Your task to perform on an android device: uninstall "AliExpress" Image 0: 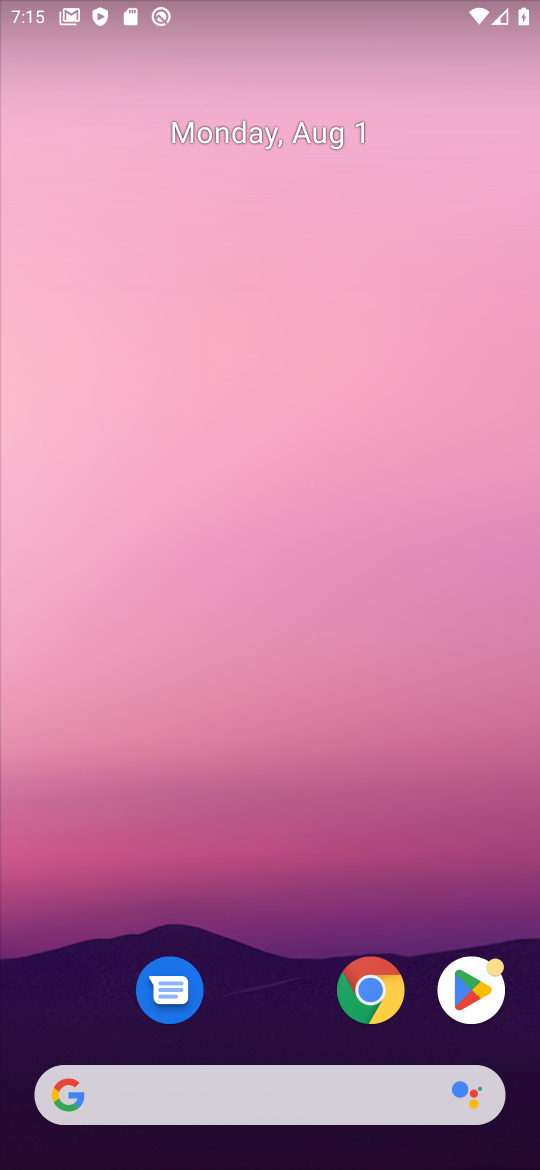
Step 0: press home button
Your task to perform on an android device: uninstall "AliExpress" Image 1: 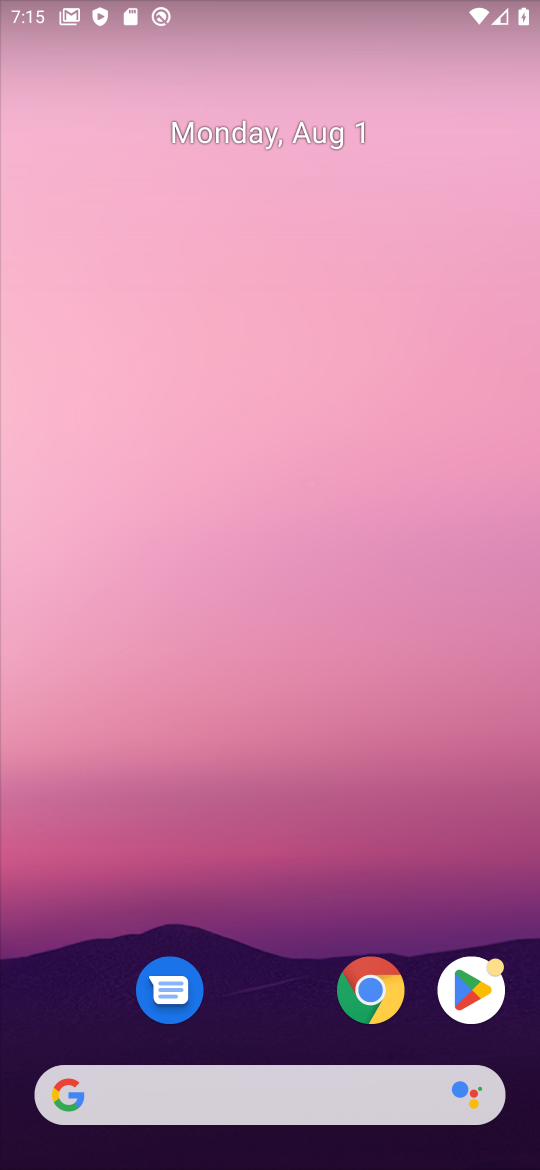
Step 1: click (481, 988)
Your task to perform on an android device: uninstall "AliExpress" Image 2: 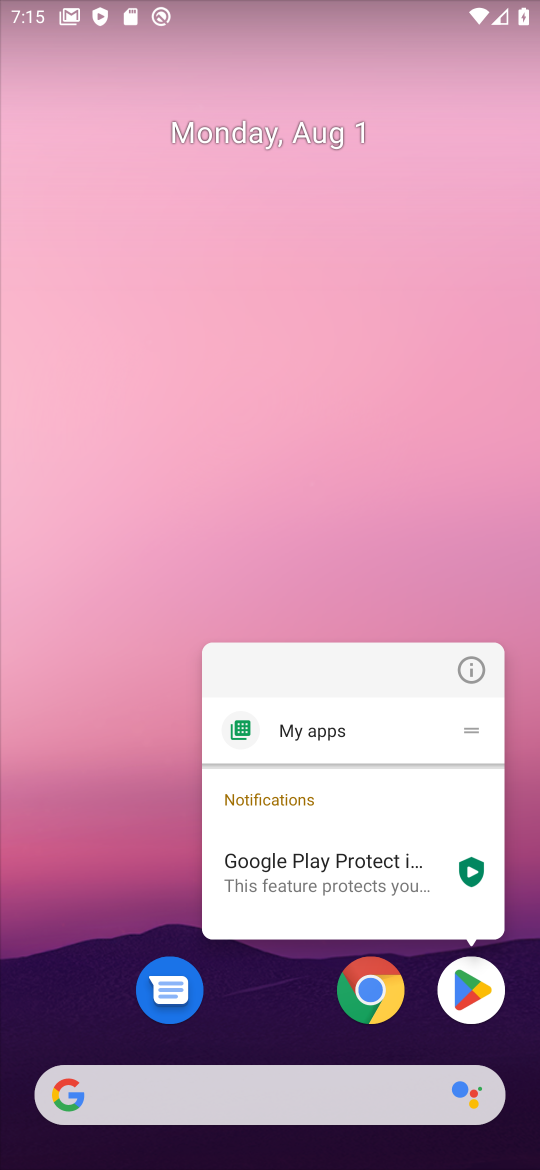
Step 2: click (460, 986)
Your task to perform on an android device: uninstall "AliExpress" Image 3: 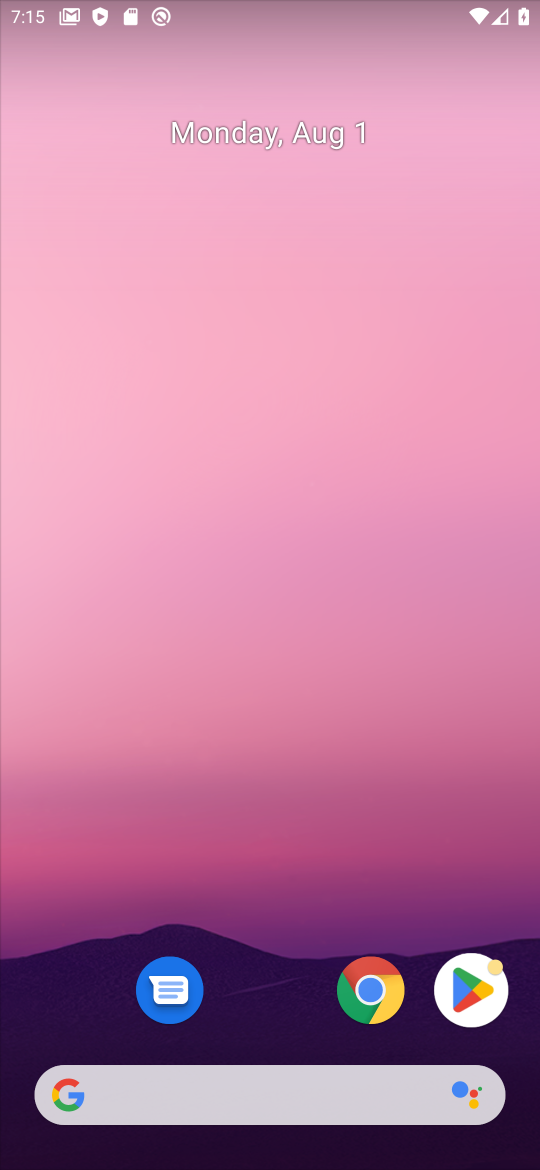
Step 3: click (465, 989)
Your task to perform on an android device: uninstall "AliExpress" Image 4: 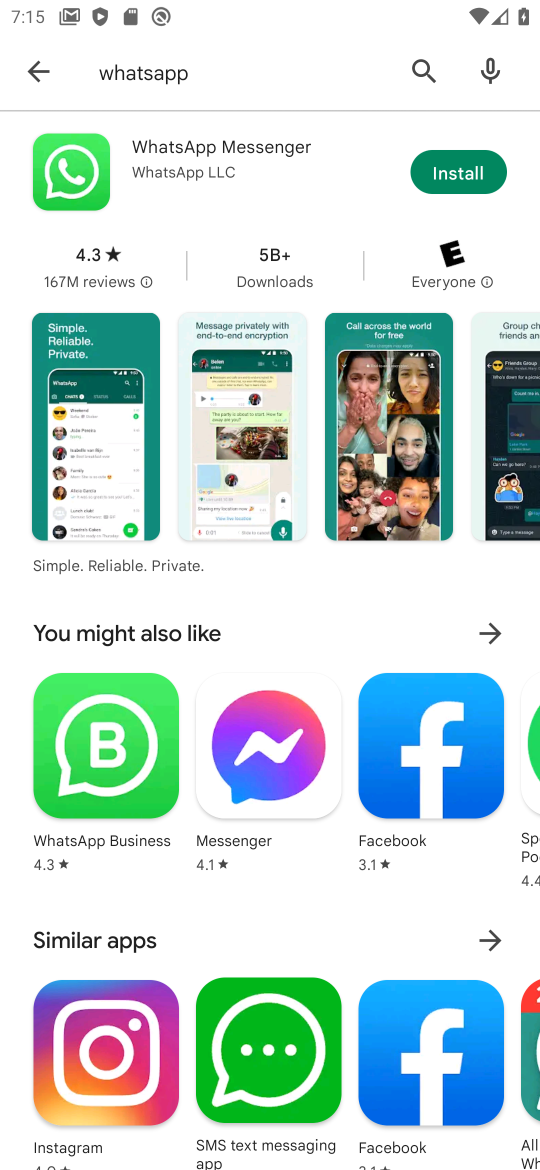
Step 4: click (419, 66)
Your task to perform on an android device: uninstall "AliExpress" Image 5: 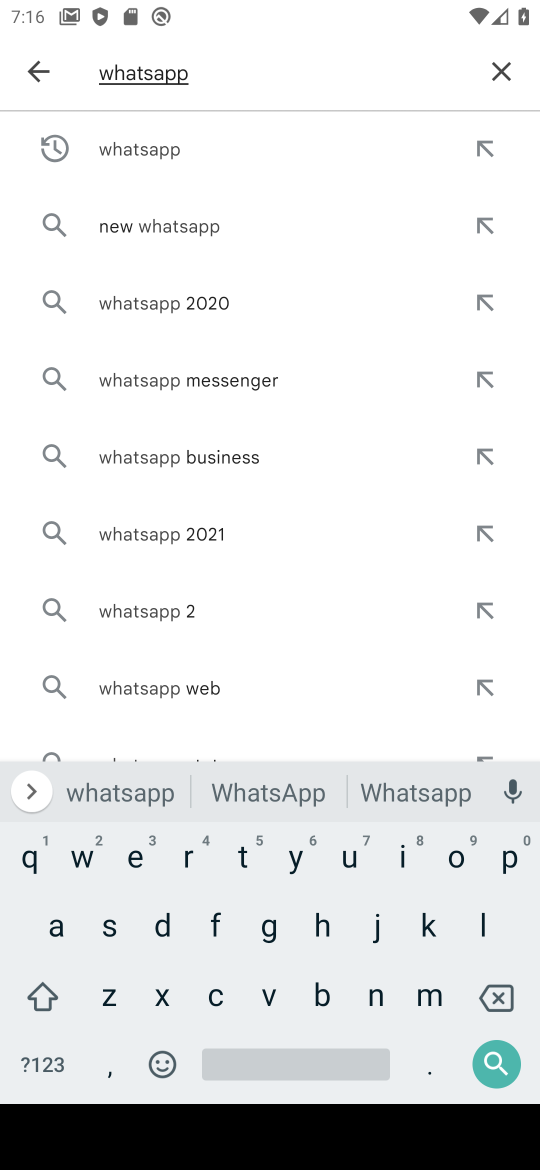
Step 5: click (502, 69)
Your task to perform on an android device: uninstall "AliExpress" Image 6: 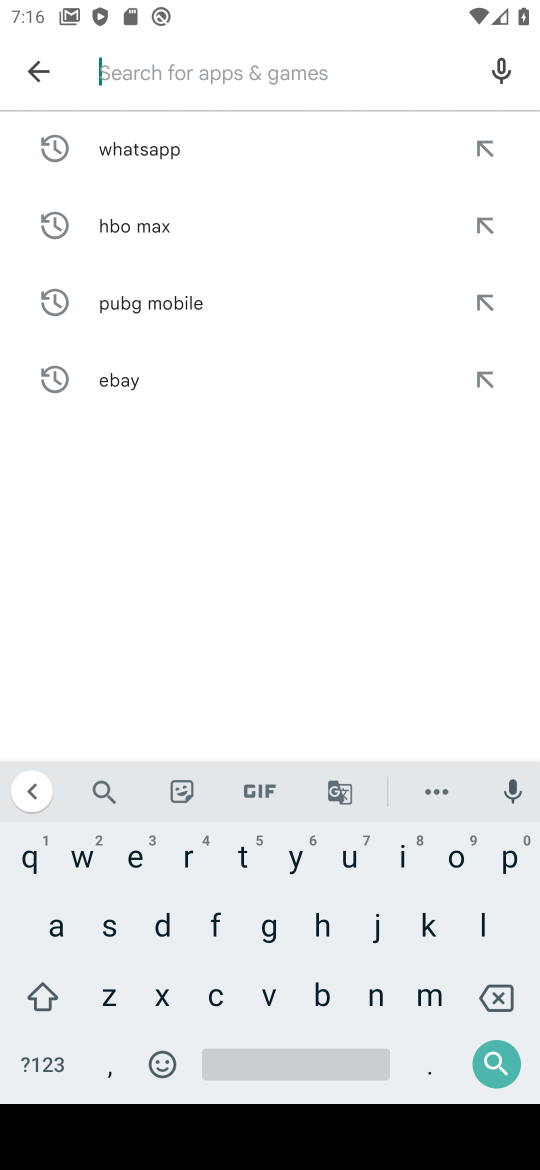
Step 6: click (59, 909)
Your task to perform on an android device: uninstall "AliExpress" Image 7: 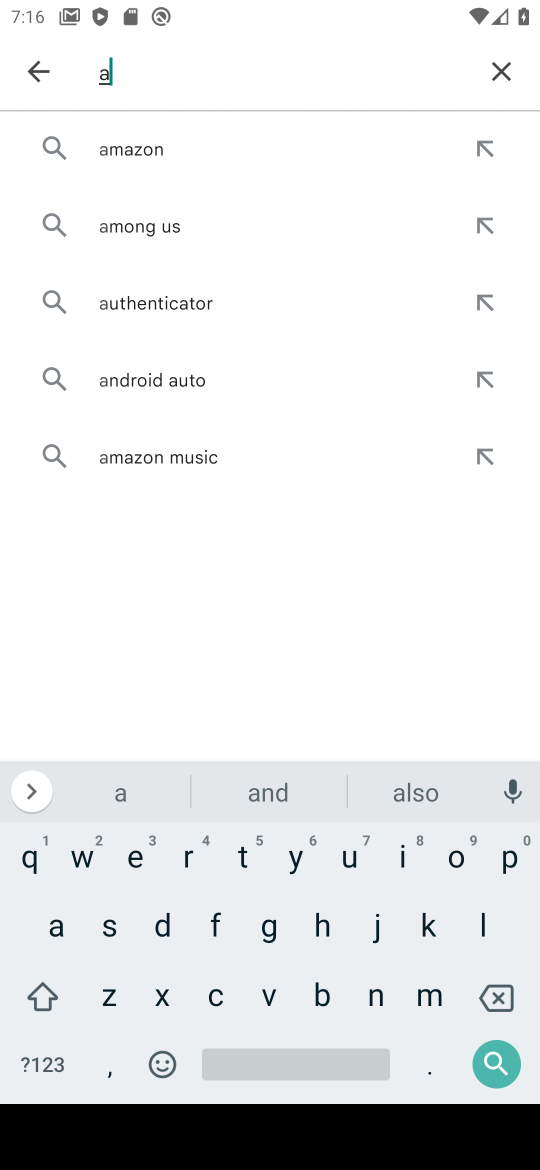
Step 7: click (482, 914)
Your task to perform on an android device: uninstall "AliExpress" Image 8: 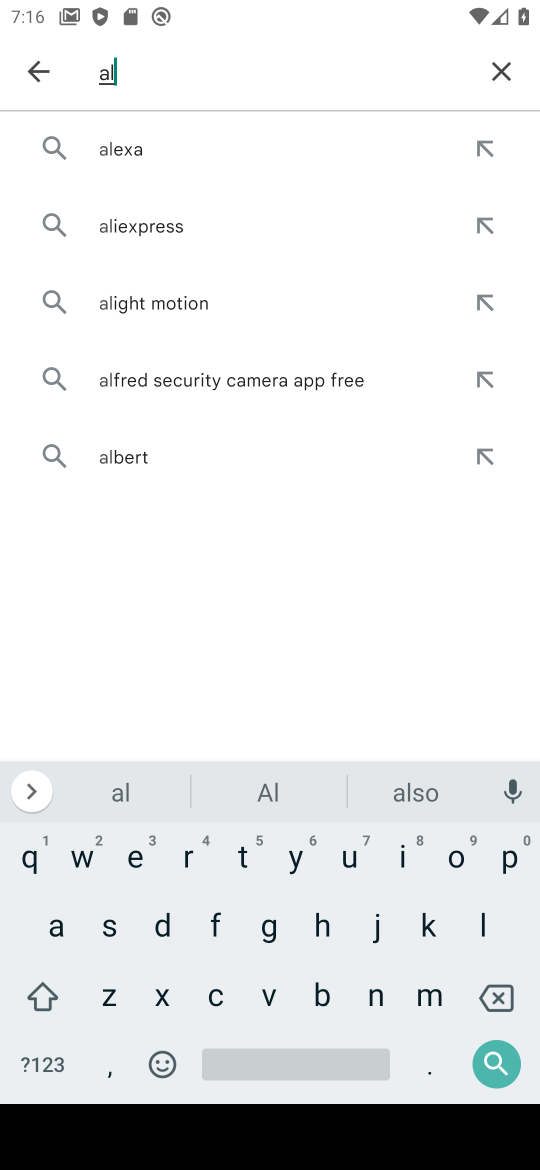
Step 8: click (154, 224)
Your task to perform on an android device: uninstall "AliExpress" Image 9: 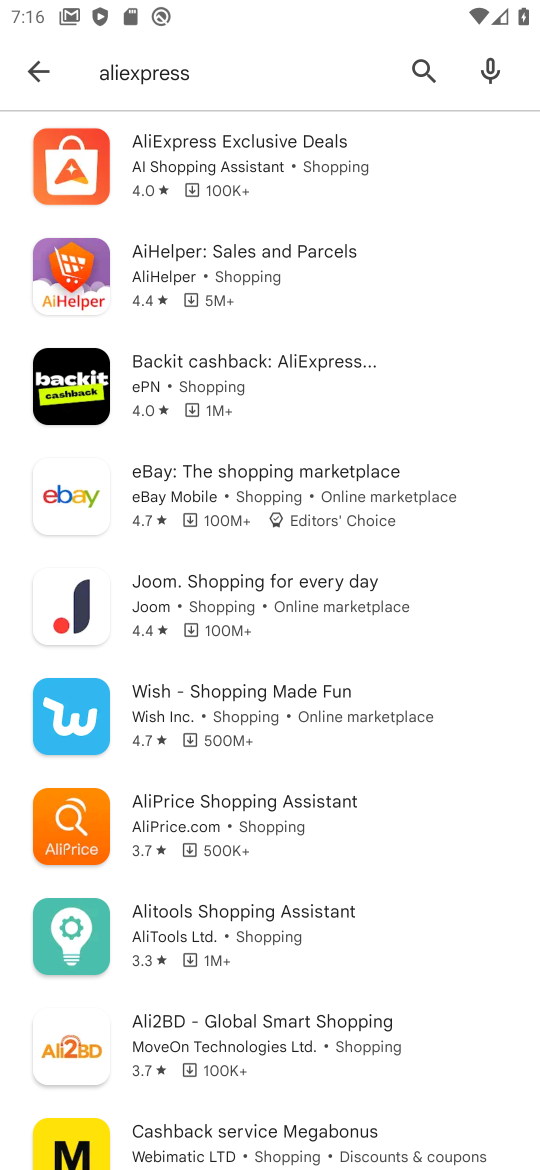
Step 9: click (182, 162)
Your task to perform on an android device: uninstall "AliExpress" Image 10: 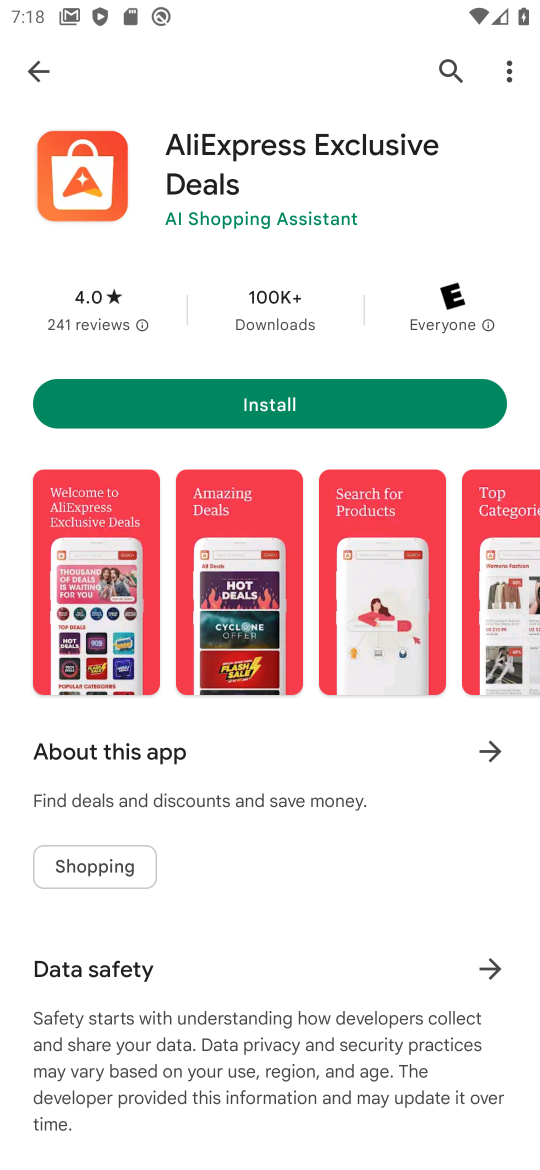
Step 10: task complete